Your task to perform on an android device: Open calendar and show me the first week of next month Image 0: 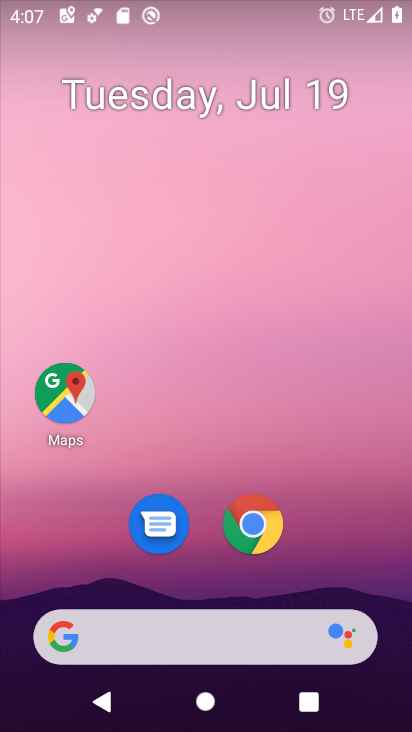
Step 0: drag from (312, 543) to (327, 39)
Your task to perform on an android device: Open calendar and show me the first week of next month Image 1: 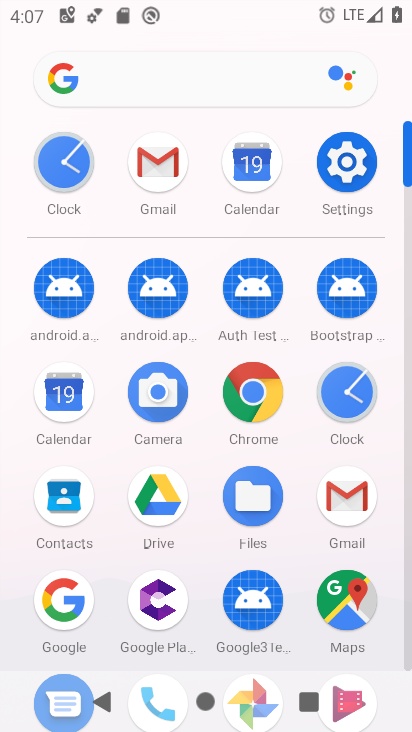
Step 1: click (262, 163)
Your task to perform on an android device: Open calendar and show me the first week of next month Image 2: 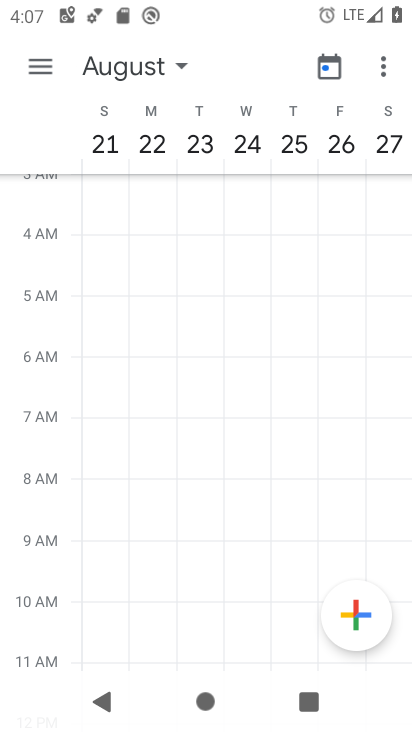
Step 2: task complete